Your task to perform on an android device: Search for Mexican restaurants on Maps Image 0: 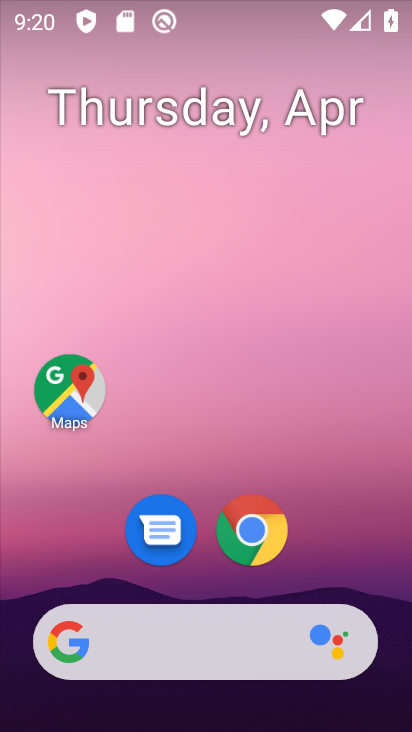
Step 0: drag from (375, 578) to (273, 92)
Your task to perform on an android device: Search for Mexican restaurants on Maps Image 1: 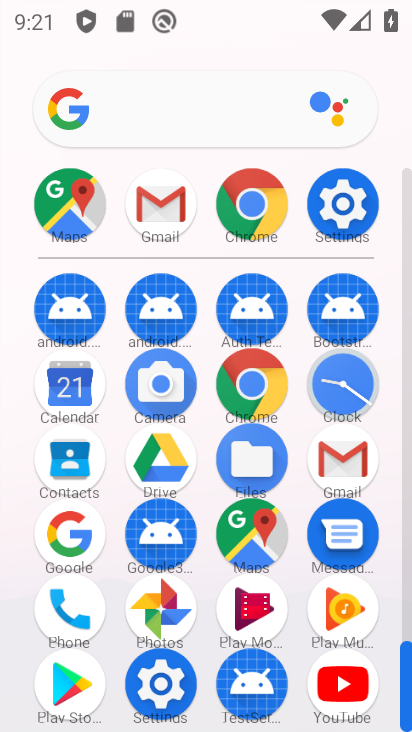
Step 1: click (238, 544)
Your task to perform on an android device: Search for Mexican restaurants on Maps Image 2: 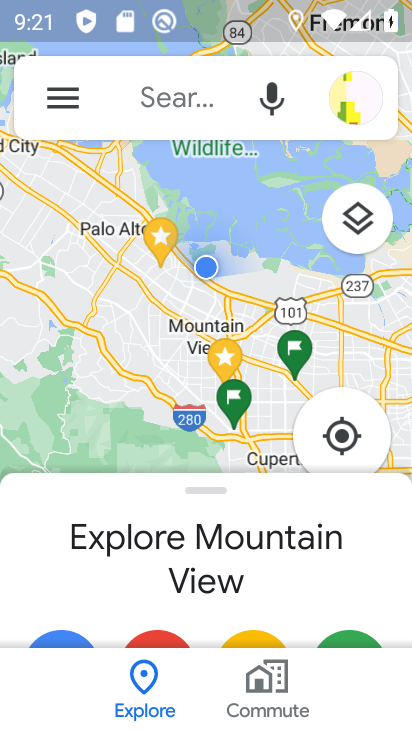
Step 2: click (130, 101)
Your task to perform on an android device: Search for Mexican restaurants on Maps Image 3: 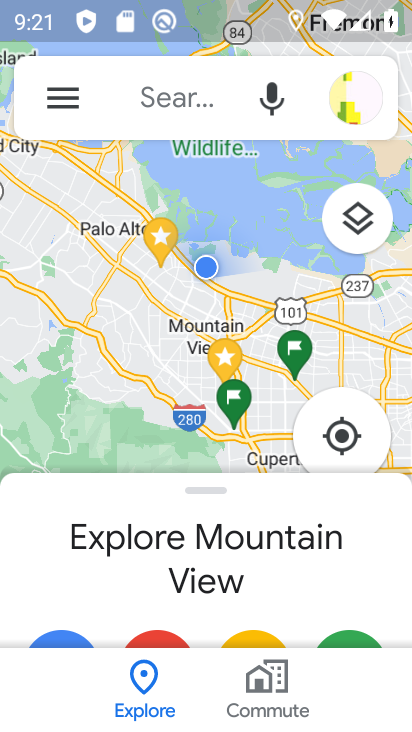
Step 3: click (165, 104)
Your task to perform on an android device: Search for Mexican restaurants on Maps Image 4: 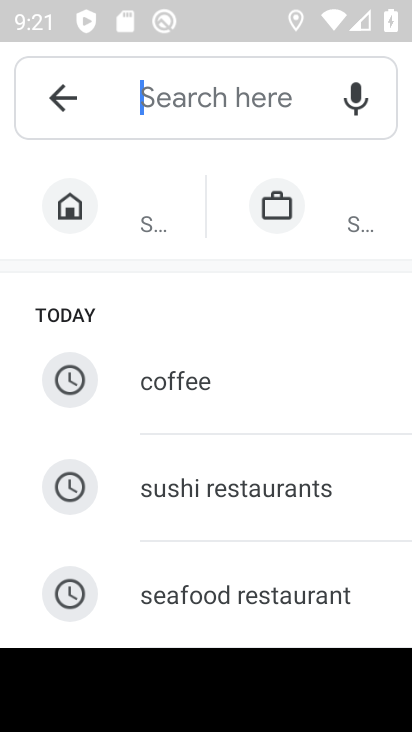
Step 4: drag from (234, 594) to (203, 182)
Your task to perform on an android device: Search for Mexican restaurants on Maps Image 5: 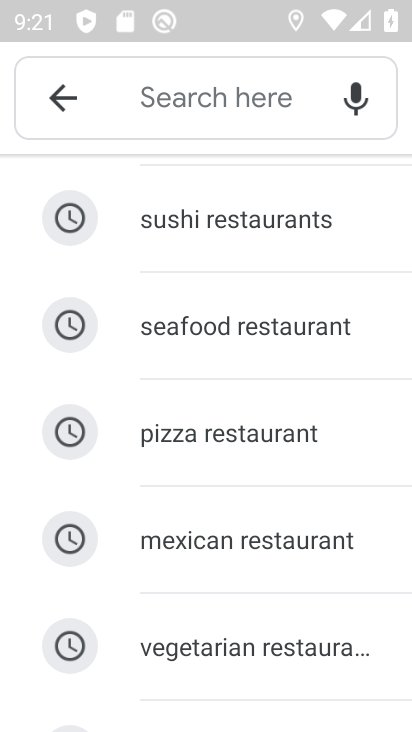
Step 5: click (274, 548)
Your task to perform on an android device: Search for Mexican restaurants on Maps Image 6: 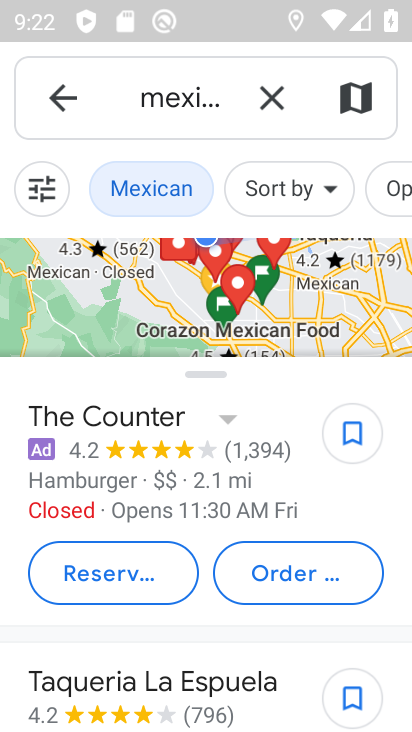
Step 6: task complete